Your task to perform on an android device: delete location history Image 0: 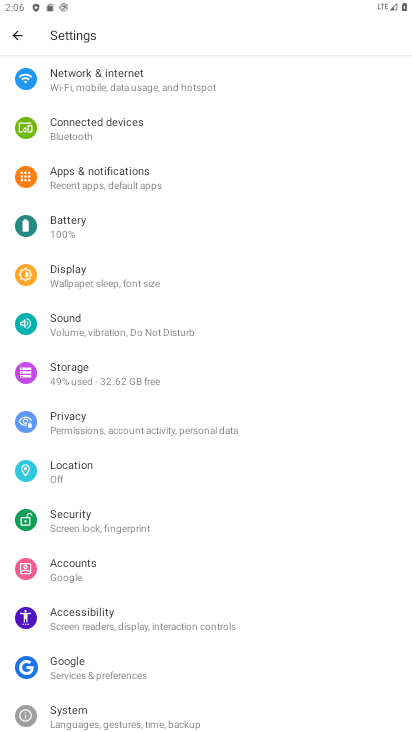
Step 0: press home button
Your task to perform on an android device: delete location history Image 1: 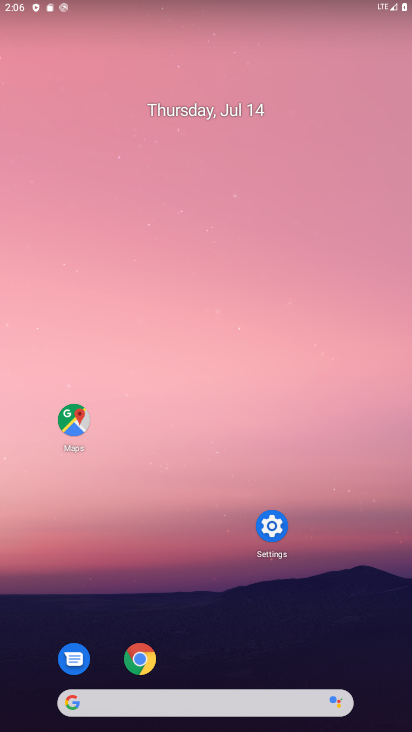
Step 1: click (271, 520)
Your task to perform on an android device: delete location history Image 2: 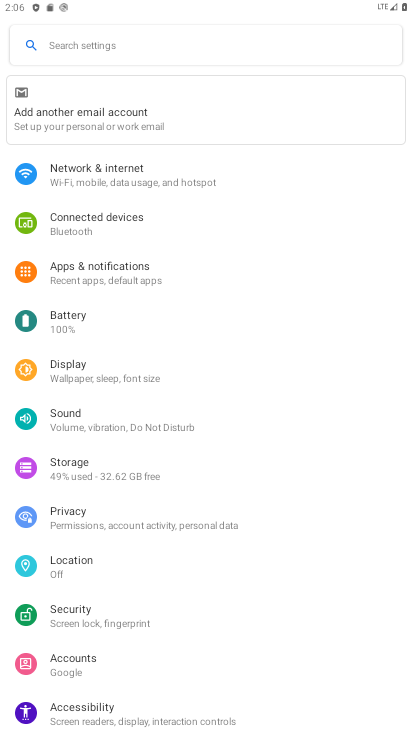
Step 2: click (74, 563)
Your task to perform on an android device: delete location history Image 3: 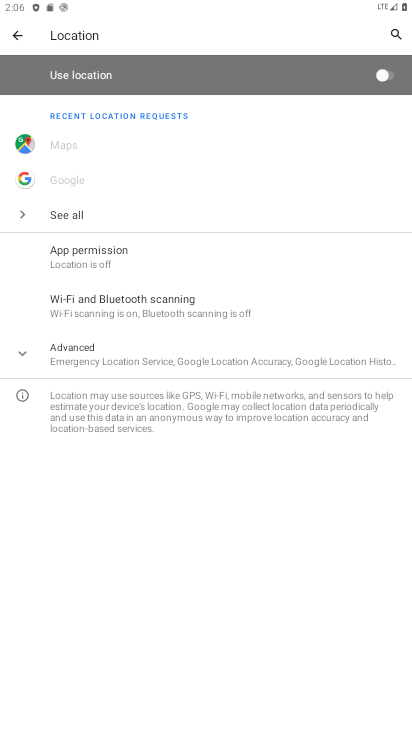
Step 3: click (45, 352)
Your task to perform on an android device: delete location history Image 4: 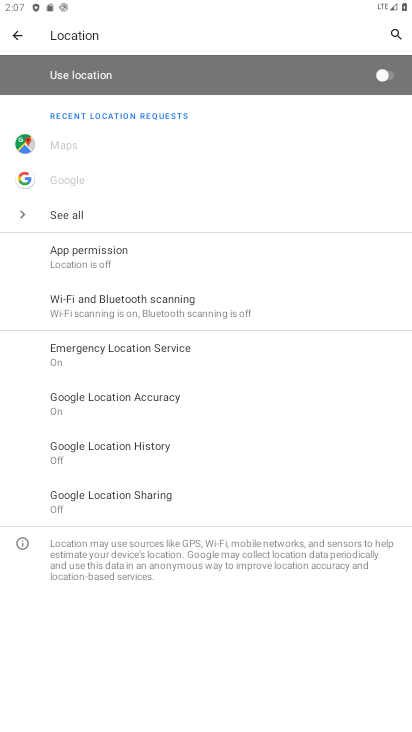
Step 4: click (132, 441)
Your task to perform on an android device: delete location history Image 5: 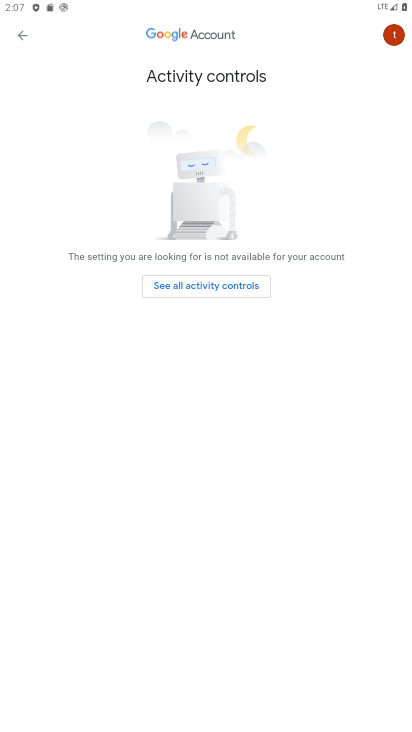
Step 5: click (209, 293)
Your task to perform on an android device: delete location history Image 6: 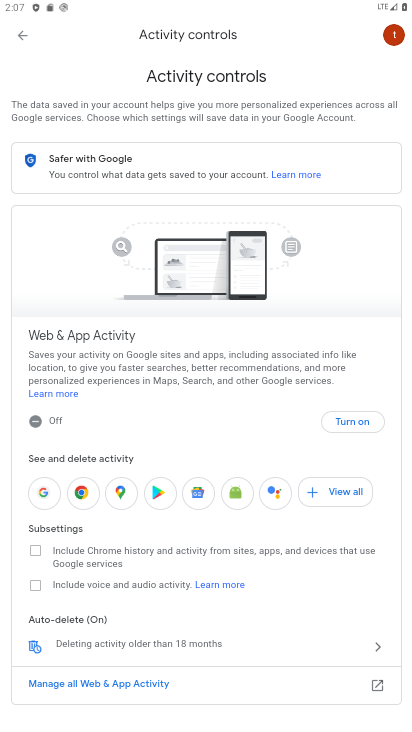
Step 6: task complete